Your task to perform on an android device: Go to ESPN.com Image 0: 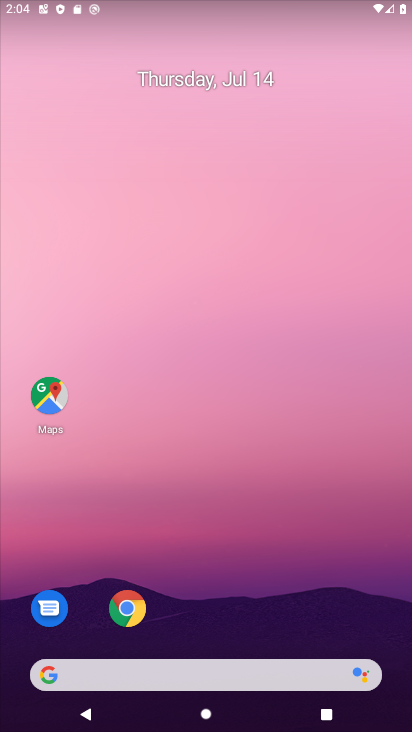
Step 0: click (122, 612)
Your task to perform on an android device: Go to ESPN.com Image 1: 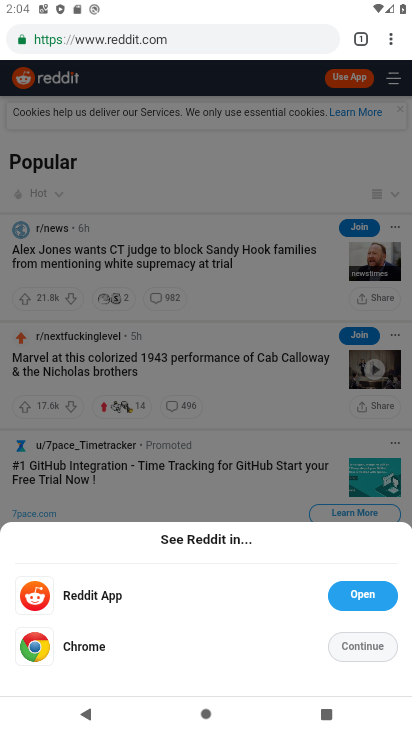
Step 1: click (359, 30)
Your task to perform on an android device: Go to ESPN.com Image 2: 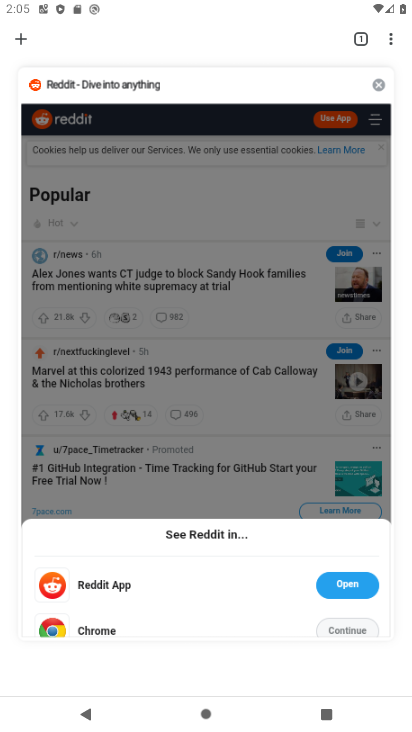
Step 2: click (19, 44)
Your task to perform on an android device: Go to ESPN.com Image 3: 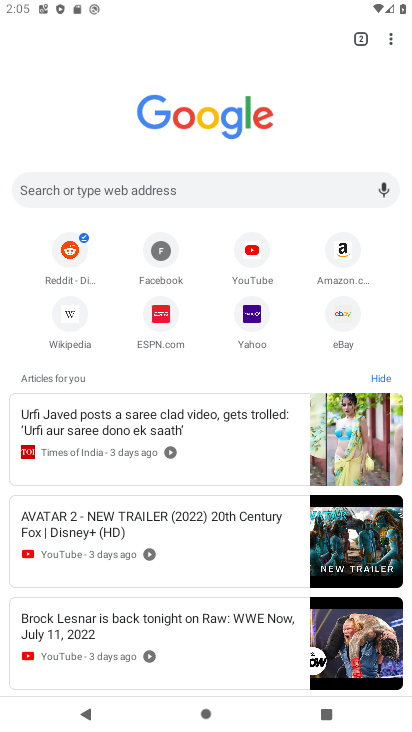
Step 3: click (159, 321)
Your task to perform on an android device: Go to ESPN.com Image 4: 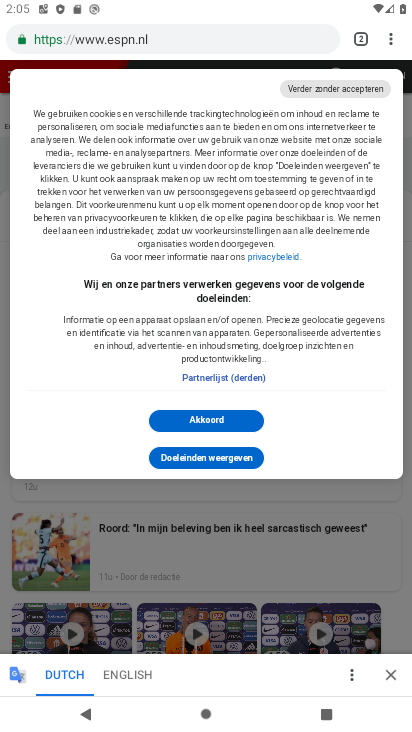
Step 4: task complete